Your task to perform on an android device: What's on my calendar today? Image 0: 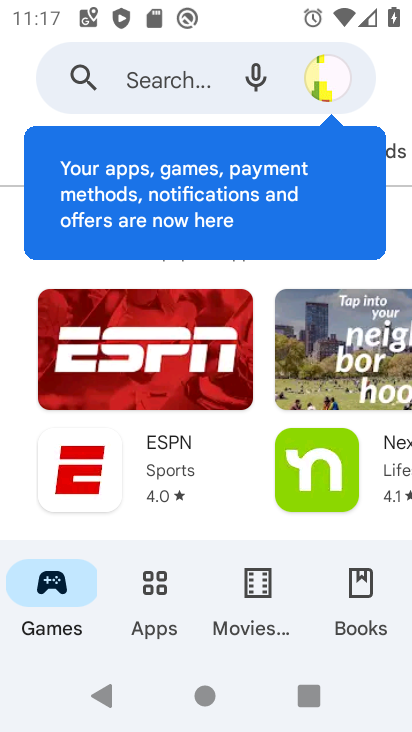
Step 0: press home button
Your task to perform on an android device: What's on my calendar today? Image 1: 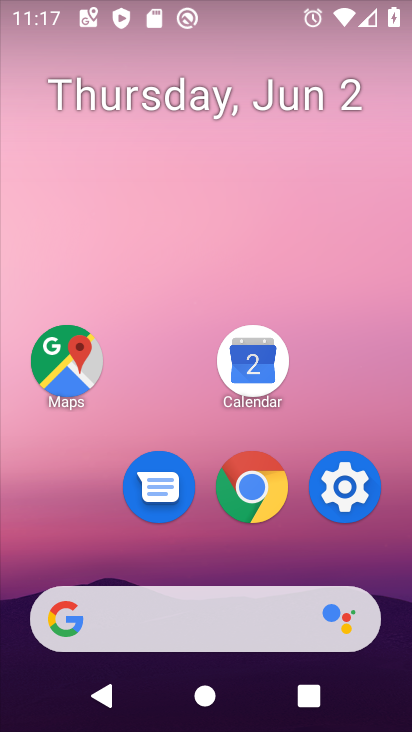
Step 1: click (266, 355)
Your task to perform on an android device: What's on my calendar today? Image 2: 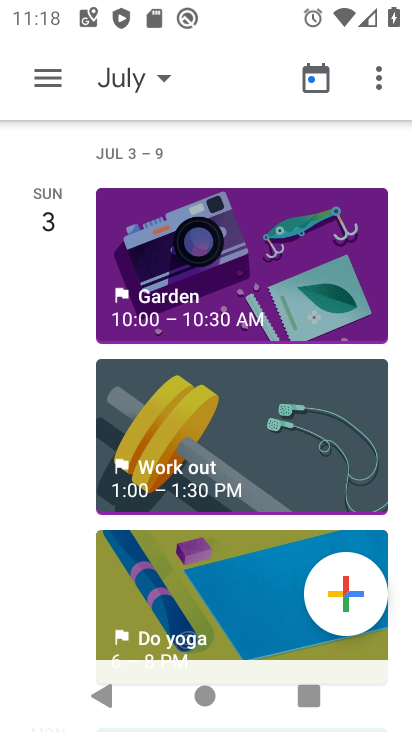
Step 2: task complete